Your task to perform on an android device: Show me popular videos on Youtube Image 0: 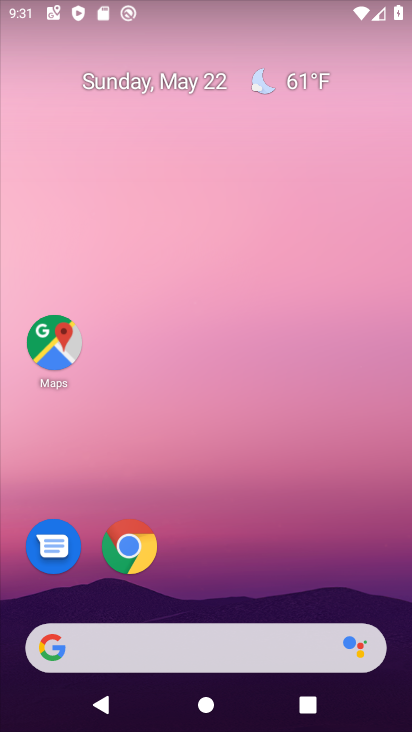
Step 0: drag from (259, 554) to (279, 179)
Your task to perform on an android device: Show me popular videos on Youtube Image 1: 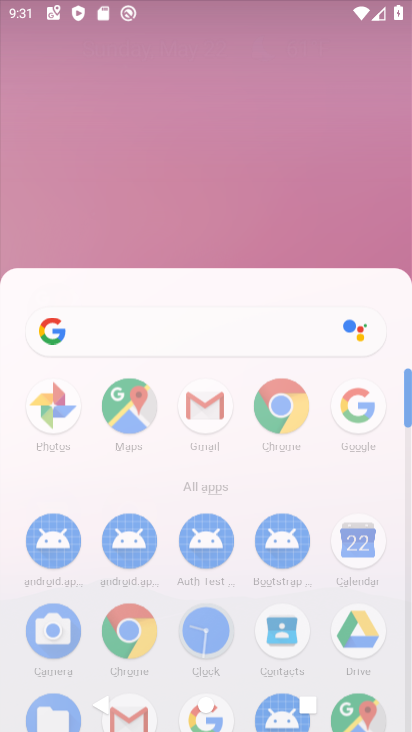
Step 1: click (292, 139)
Your task to perform on an android device: Show me popular videos on Youtube Image 2: 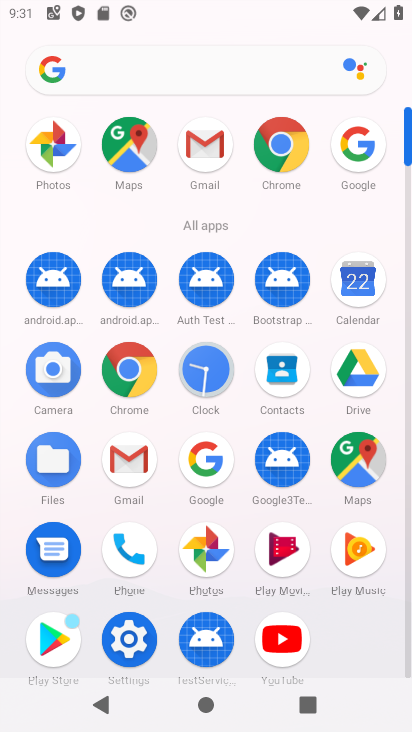
Step 2: click (285, 637)
Your task to perform on an android device: Show me popular videos on Youtube Image 3: 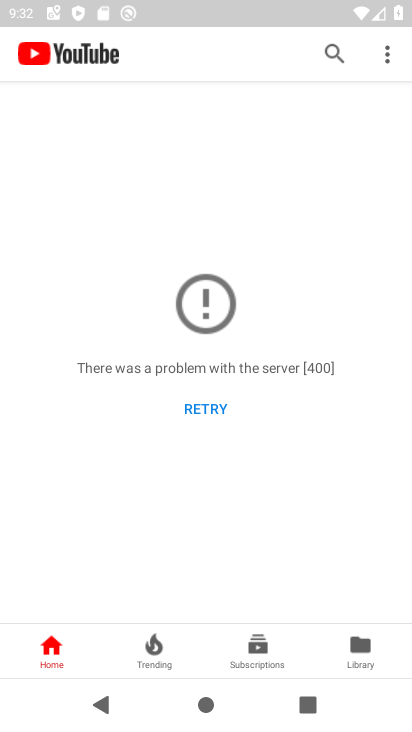
Step 3: click (194, 413)
Your task to perform on an android device: Show me popular videos on Youtube Image 4: 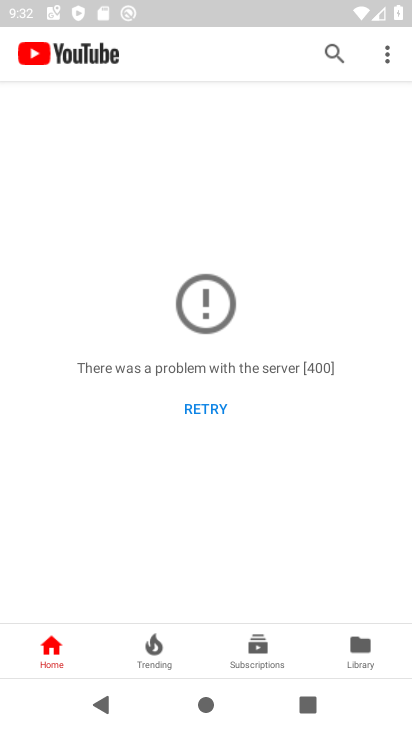
Step 4: click (203, 403)
Your task to perform on an android device: Show me popular videos on Youtube Image 5: 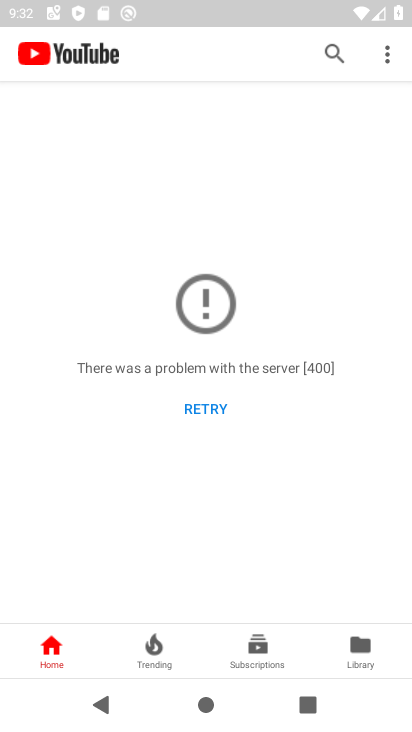
Step 5: click (214, 416)
Your task to perform on an android device: Show me popular videos on Youtube Image 6: 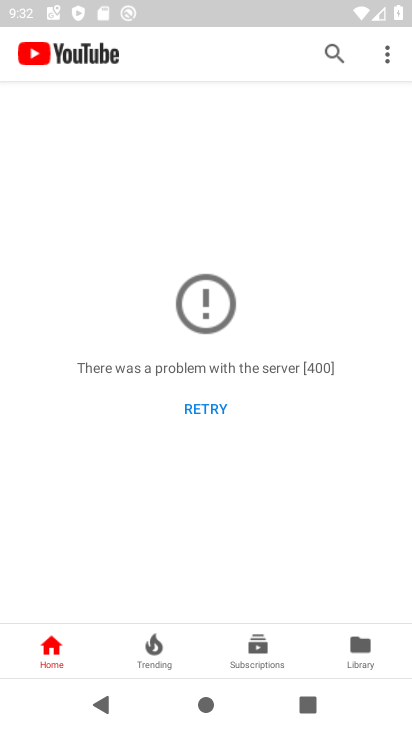
Step 6: click (220, 414)
Your task to perform on an android device: Show me popular videos on Youtube Image 7: 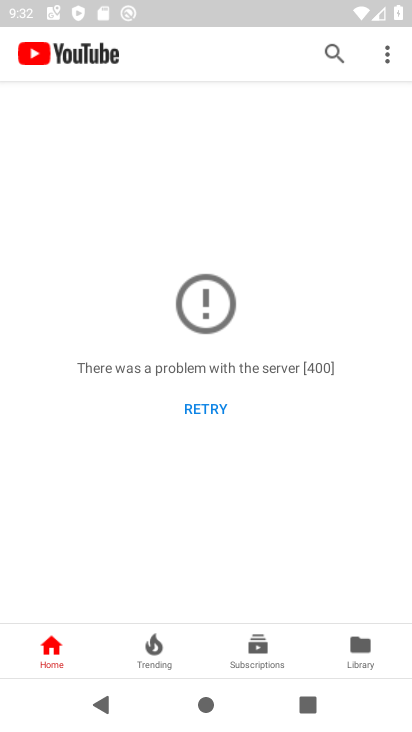
Step 7: click (220, 414)
Your task to perform on an android device: Show me popular videos on Youtube Image 8: 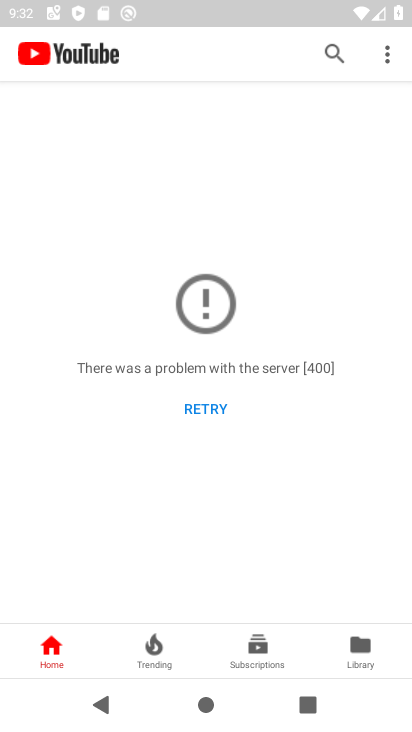
Step 8: click (325, 47)
Your task to perform on an android device: Show me popular videos on Youtube Image 9: 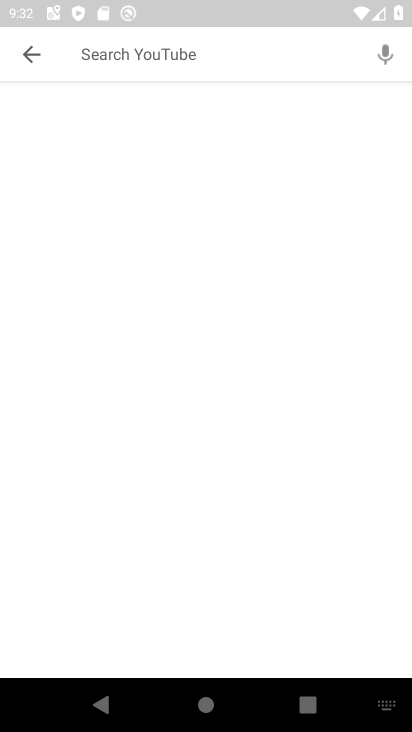
Step 9: type "show me popular video"
Your task to perform on an android device: Show me popular videos on Youtube Image 10: 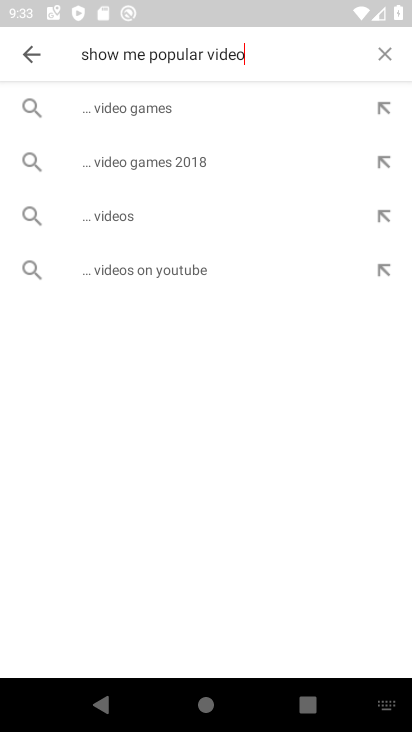
Step 10: click (122, 275)
Your task to perform on an android device: Show me popular videos on Youtube Image 11: 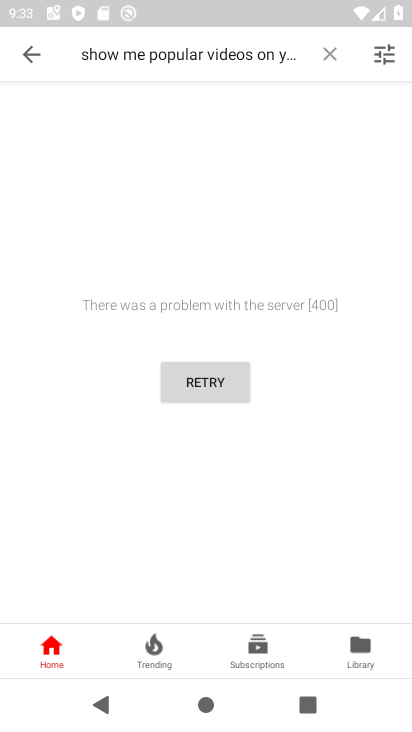
Step 11: click (203, 375)
Your task to perform on an android device: Show me popular videos on Youtube Image 12: 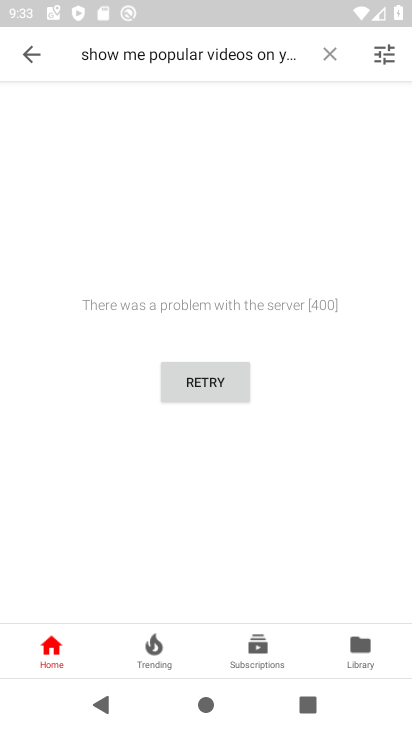
Step 12: task complete